Your task to perform on an android device: Go to Wikipedia Image 0: 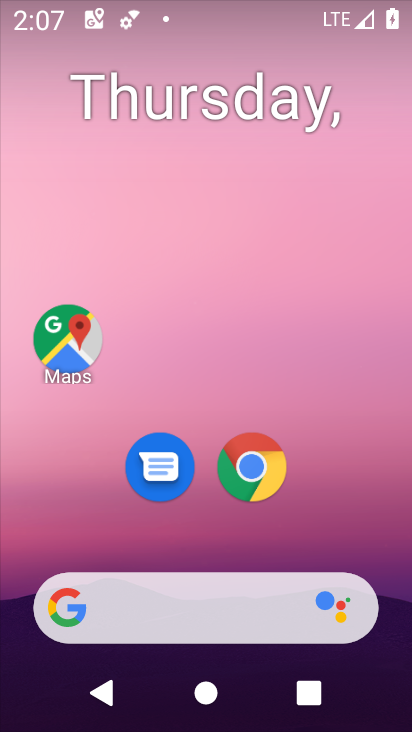
Step 0: click (277, 484)
Your task to perform on an android device: Go to Wikipedia Image 1: 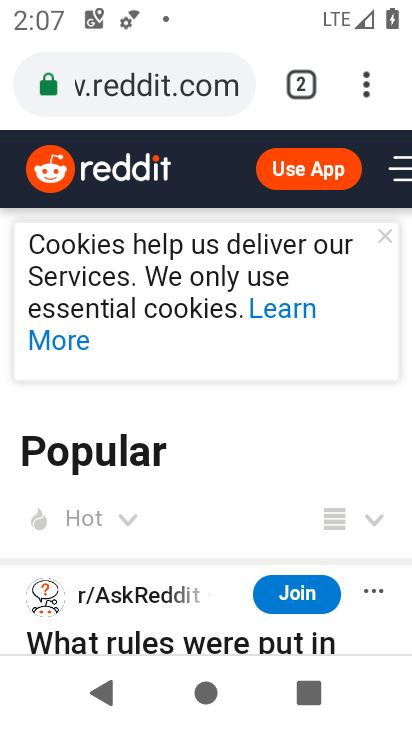
Step 1: click (301, 75)
Your task to perform on an android device: Go to Wikipedia Image 2: 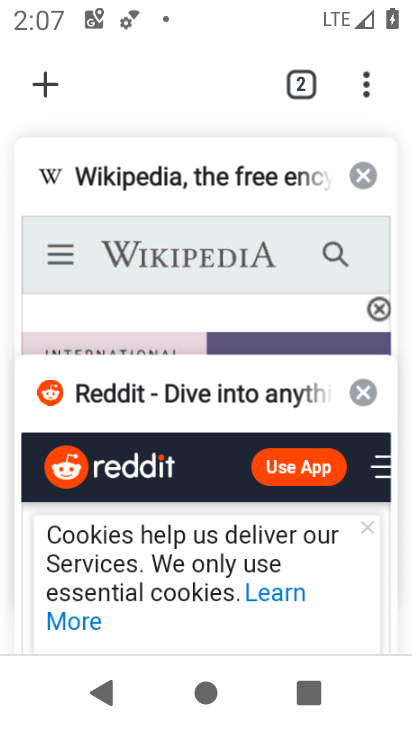
Step 2: click (40, 77)
Your task to perform on an android device: Go to Wikipedia Image 3: 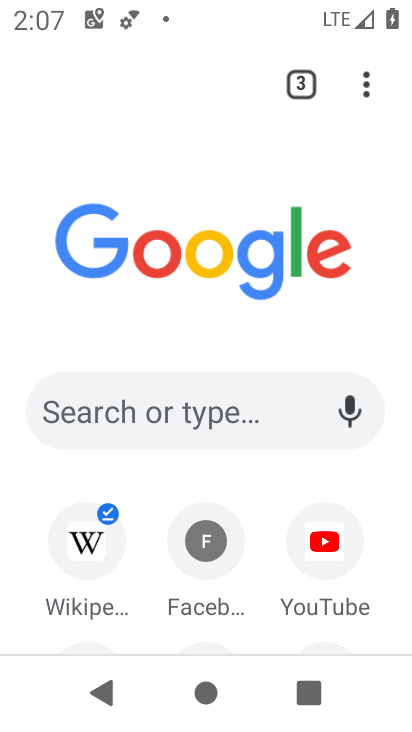
Step 3: click (95, 547)
Your task to perform on an android device: Go to Wikipedia Image 4: 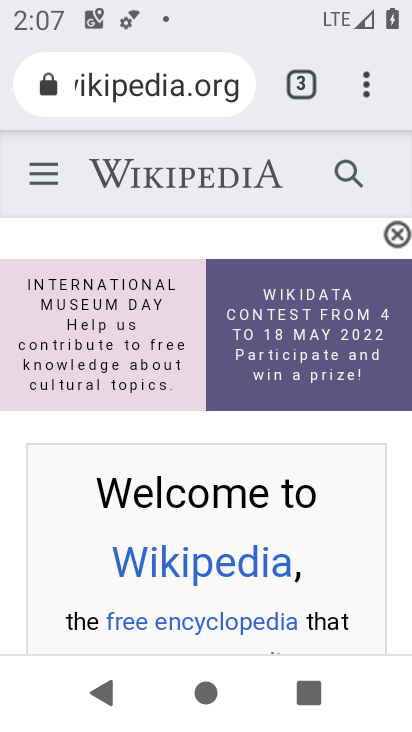
Step 4: task complete